Your task to perform on an android device: Open CNN.com Image 0: 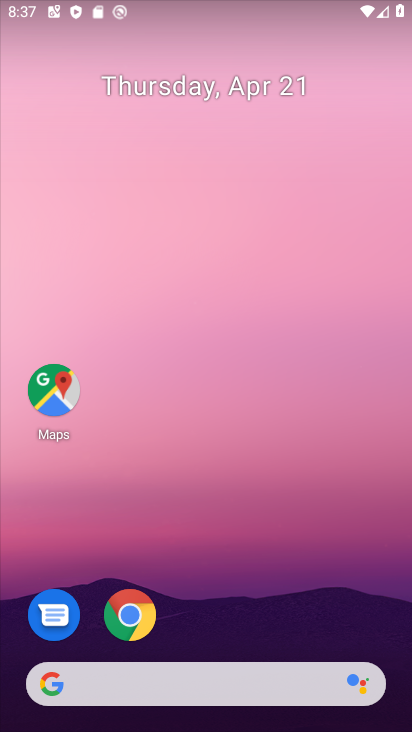
Step 0: drag from (240, 605) to (228, 60)
Your task to perform on an android device: Open CNN.com Image 1: 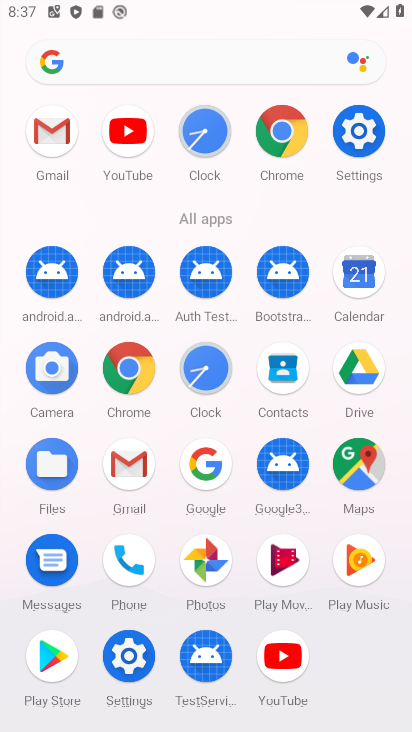
Step 1: click (208, 460)
Your task to perform on an android device: Open CNN.com Image 2: 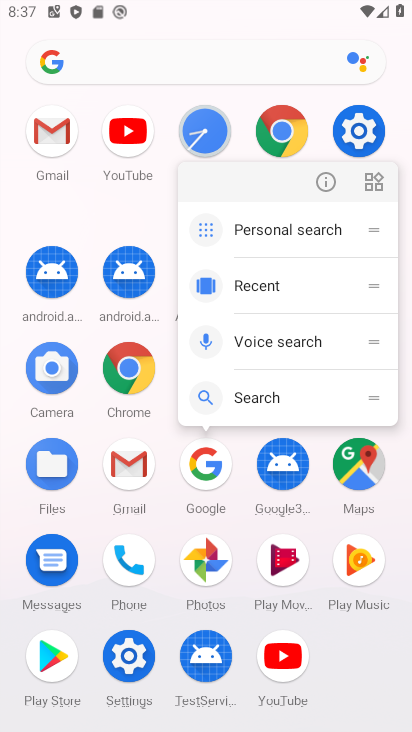
Step 2: click (211, 468)
Your task to perform on an android device: Open CNN.com Image 3: 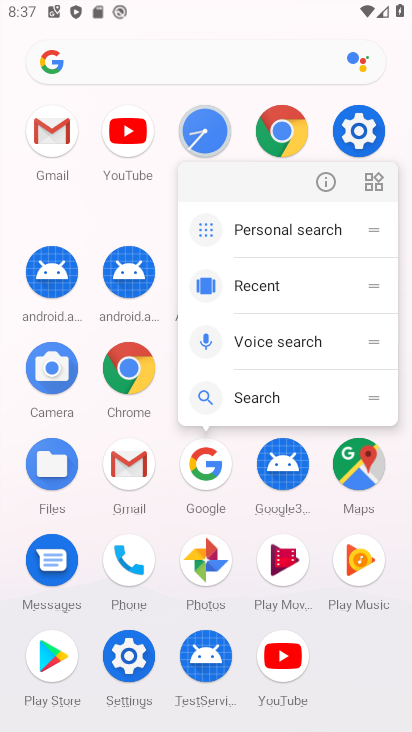
Step 3: click (208, 469)
Your task to perform on an android device: Open CNN.com Image 4: 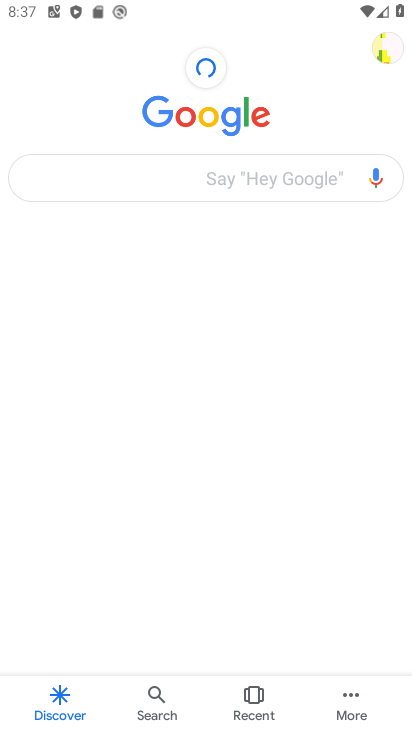
Step 4: click (209, 181)
Your task to perform on an android device: Open CNN.com Image 5: 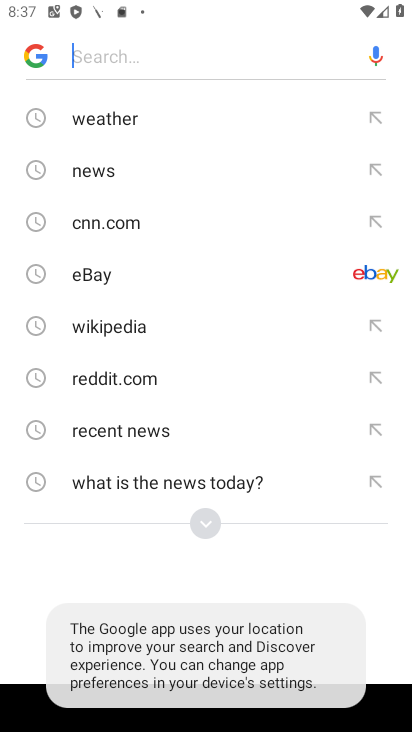
Step 5: click (187, 219)
Your task to perform on an android device: Open CNN.com Image 6: 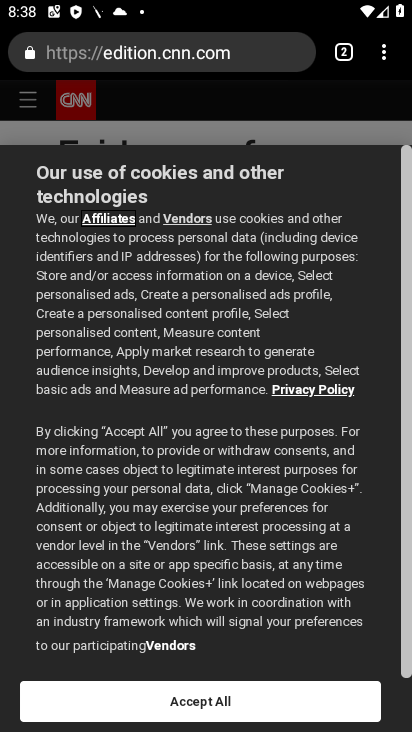
Step 6: task complete